Your task to perform on an android device: find snoozed emails in the gmail app Image 0: 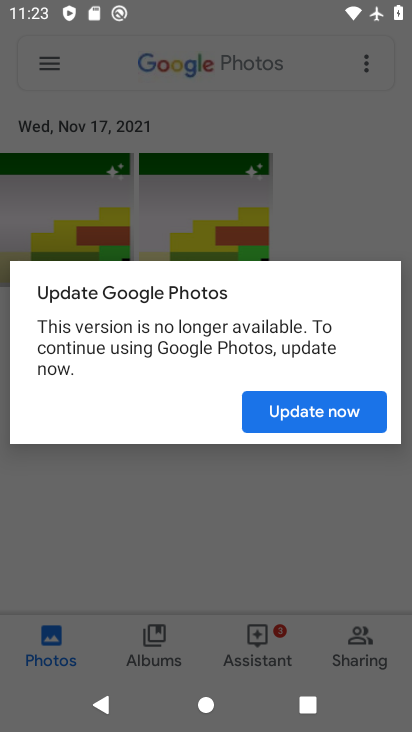
Step 0: press home button
Your task to perform on an android device: find snoozed emails in the gmail app Image 1: 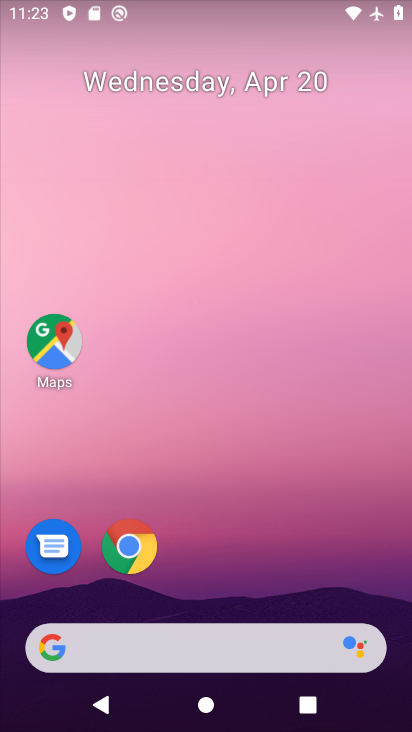
Step 1: drag from (131, 658) to (251, 167)
Your task to perform on an android device: find snoozed emails in the gmail app Image 2: 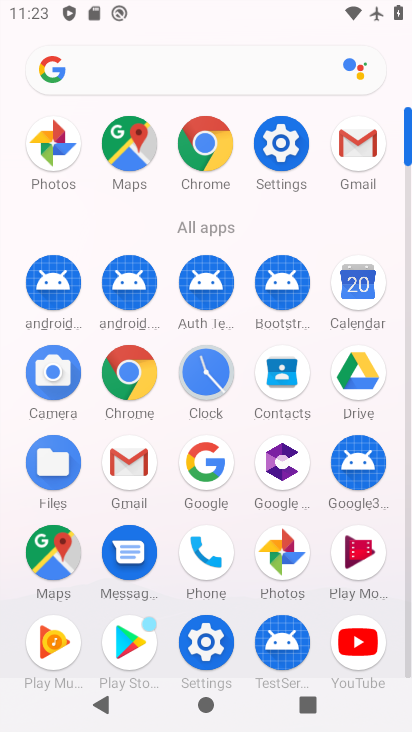
Step 2: click (355, 153)
Your task to perform on an android device: find snoozed emails in the gmail app Image 3: 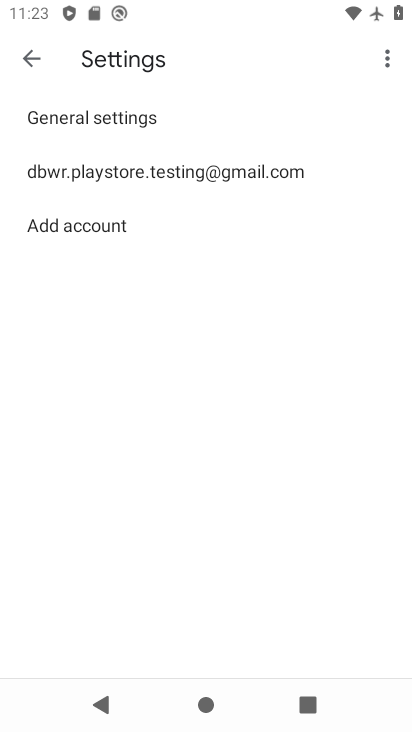
Step 3: click (33, 53)
Your task to perform on an android device: find snoozed emails in the gmail app Image 4: 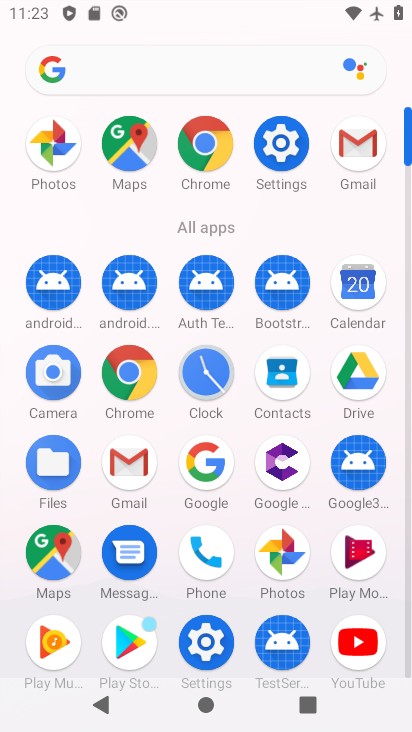
Step 4: click (358, 152)
Your task to perform on an android device: find snoozed emails in the gmail app Image 5: 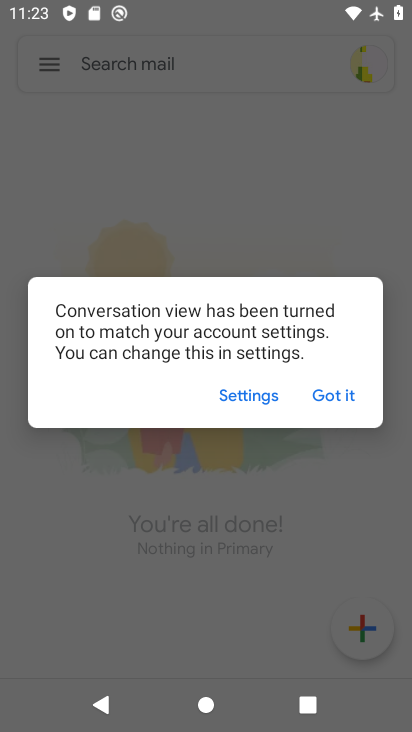
Step 5: click (329, 394)
Your task to perform on an android device: find snoozed emails in the gmail app Image 6: 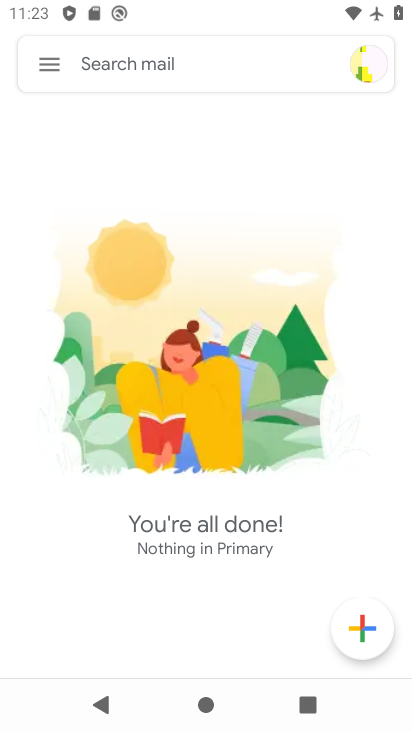
Step 6: click (47, 73)
Your task to perform on an android device: find snoozed emails in the gmail app Image 7: 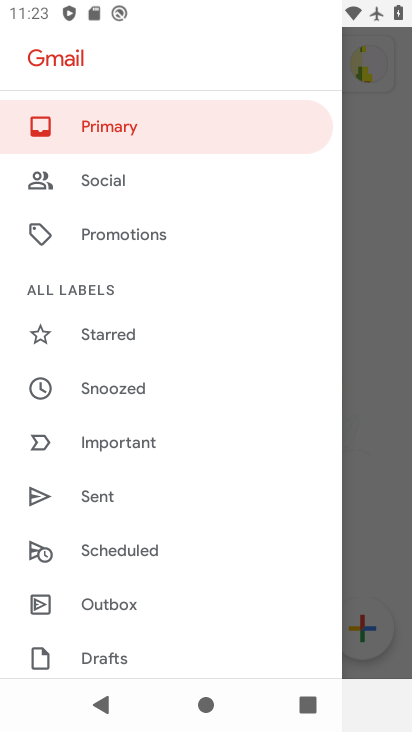
Step 7: click (110, 391)
Your task to perform on an android device: find snoozed emails in the gmail app Image 8: 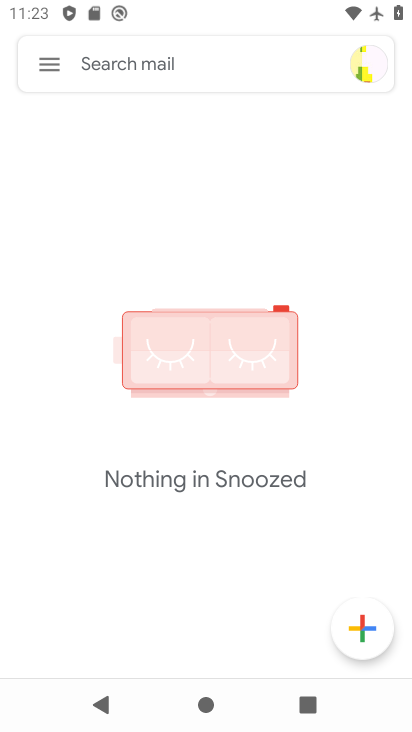
Step 8: task complete